Your task to perform on an android device: Add corsair k70 to the cart on newegg Image 0: 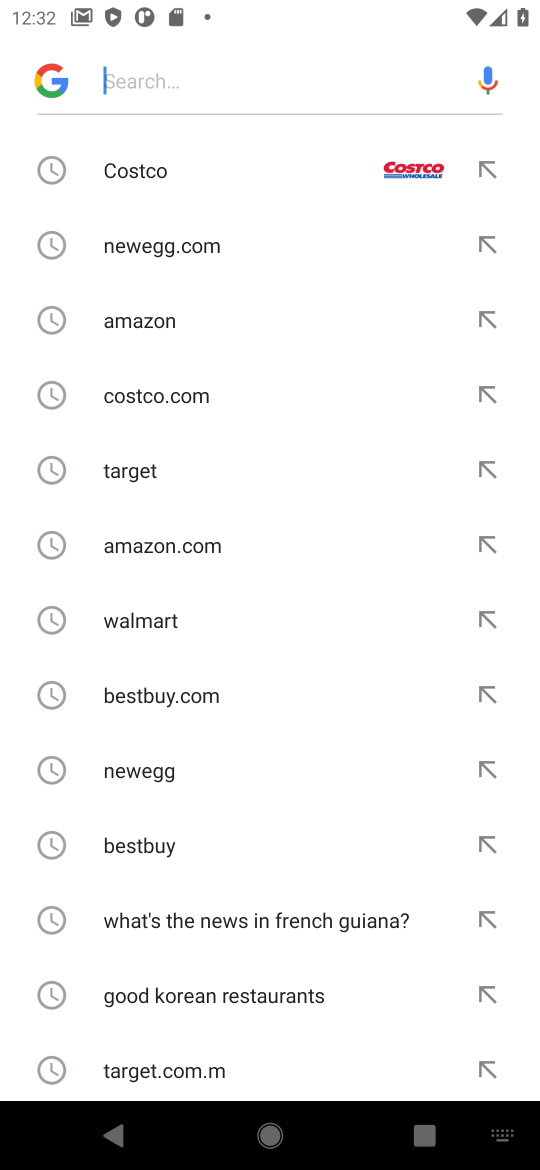
Step 0: task complete